Your task to perform on an android device: turn off javascript in the chrome app Image 0: 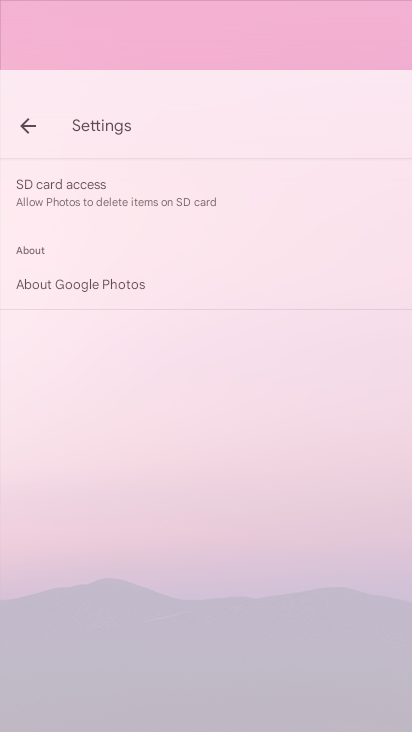
Step 0: click (198, 620)
Your task to perform on an android device: turn off javascript in the chrome app Image 1: 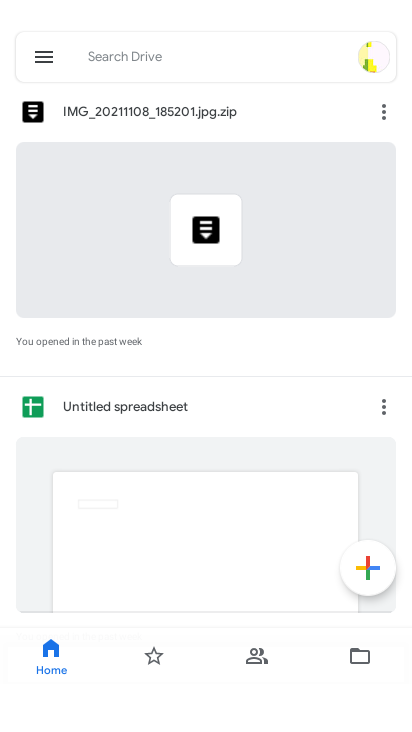
Step 1: press back button
Your task to perform on an android device: turn off javascript in the chrome app Image 2: 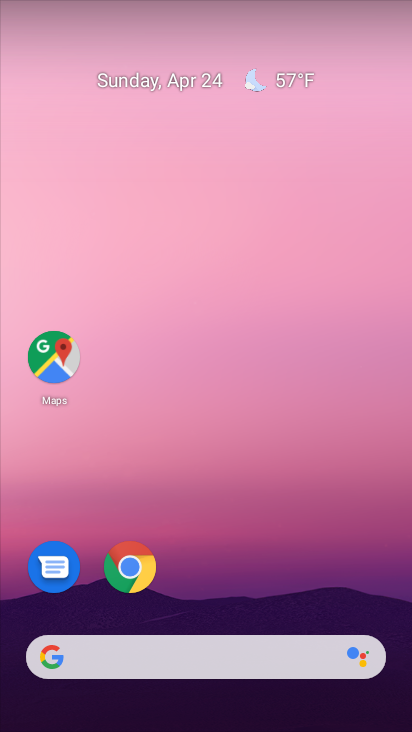
Step 2: click (346, 182)
Your task to perform on an android device: turn off javascript in the chrome app Image 3: 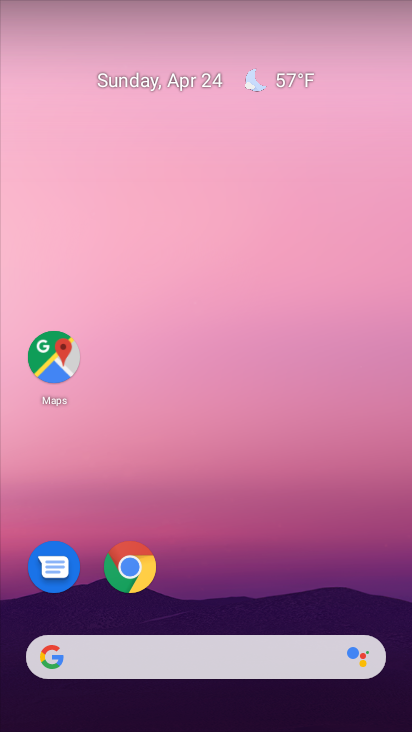
Step 3: click (128, 569)
Your task to perform on an android device: turn off javascript in the chrome app Image 4: 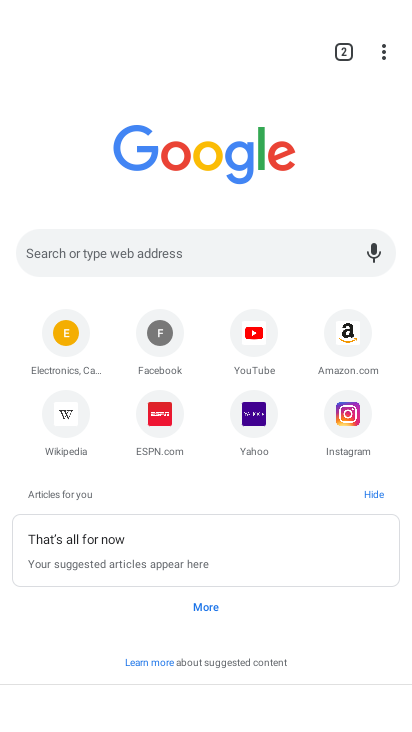
Step 4: click (383, 45)
Your task to perform on an android device: turn off javascript in the chrome app Image 5: 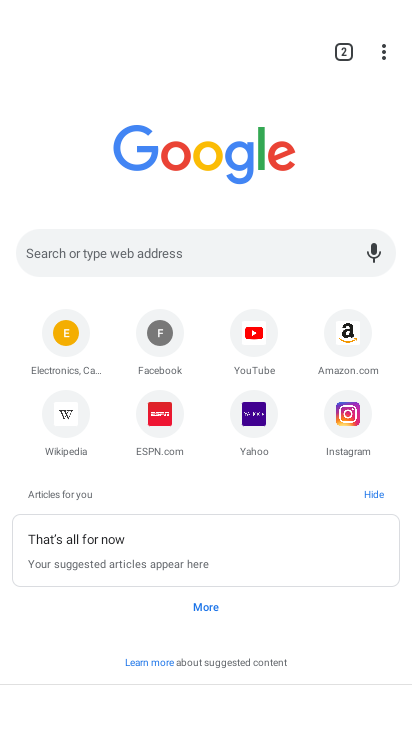
Step 5: click (139, 253)
Your task to perform on an android device: turn off javascript in the chrome app Image 6: 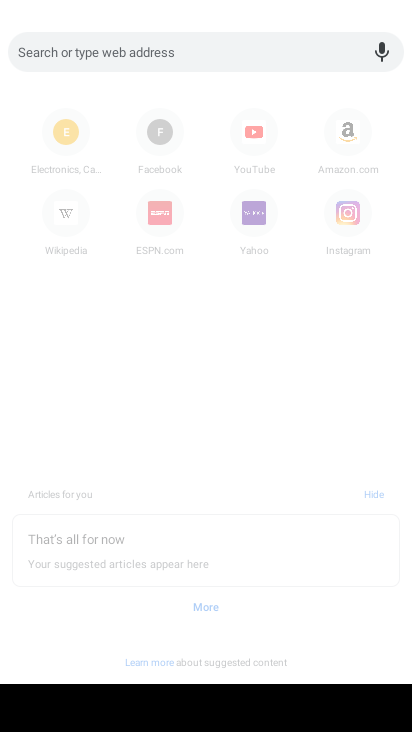
Step 6: press back button
Your task to perform on an android device: turn off javascript in the chrome app Image 7: 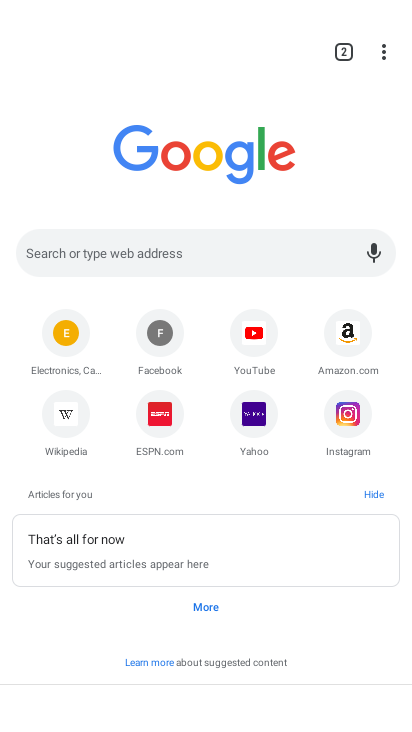
Step 7: click (382, 46)
Your task to perform on an android device: turn off javascript in the chrome app Image 8: 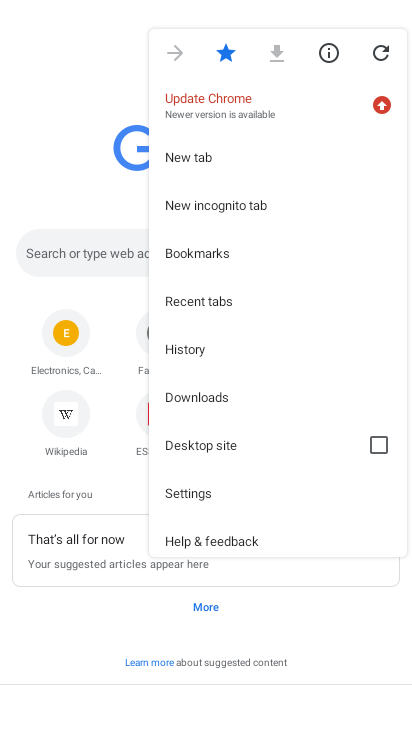
Step 8: drag from (301, 440) to (306, 244)
Your task to perform on an android device: turn off javascript in the chrome app Image 9: 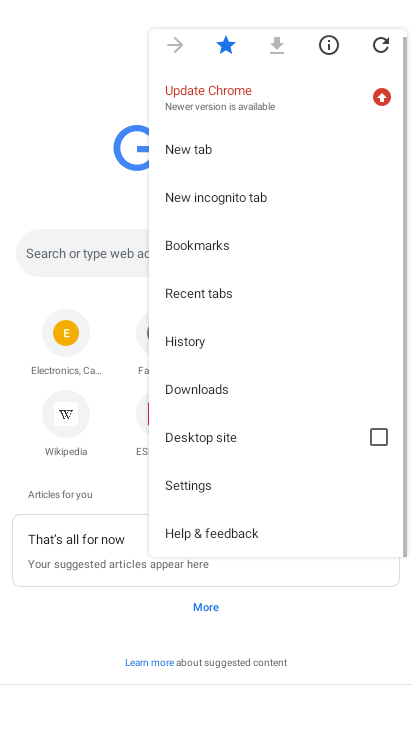
Step 9: drag from (290, 419) to (297, 161)
Your task to perform on an android device: turn off javascript in the chrome app Image 10: 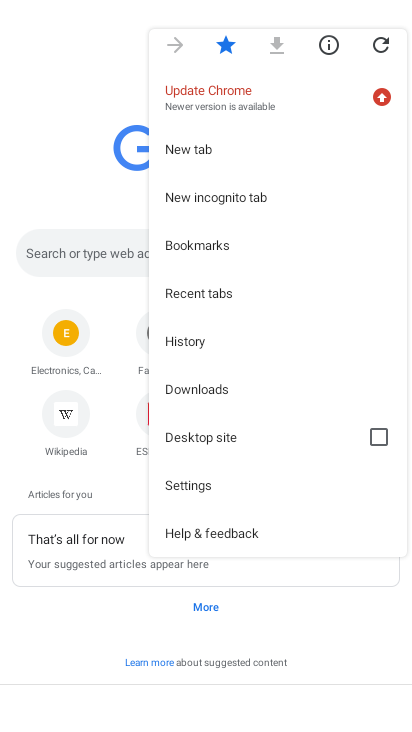
Step 10: click (185, 480)
Your task to perform on an android device: turn off javascript in the chrome app Image 11: 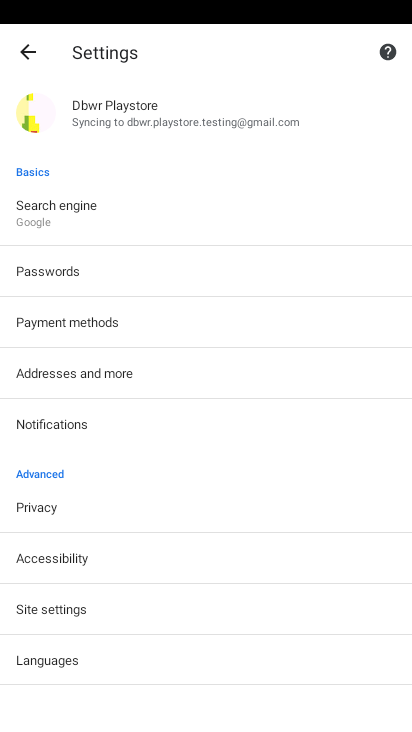
Step 11: click (70, 603)
Your task to perform on an android device: turn off javascript in the chrome app Image 12: 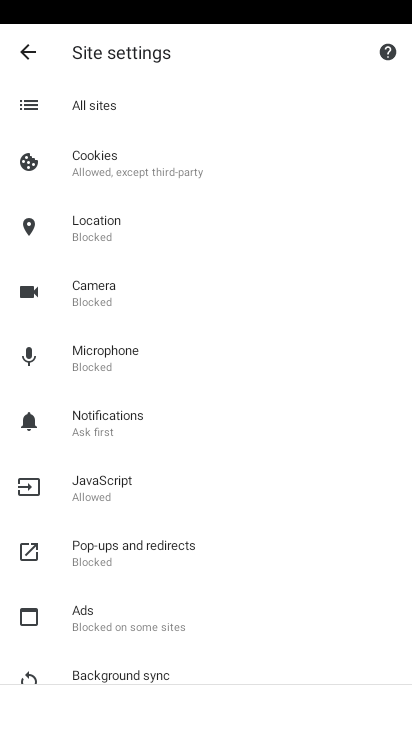
Step 12: click (92, 487)
Your task to perform on an android device: turn off javascript in the chrome app Image 13: 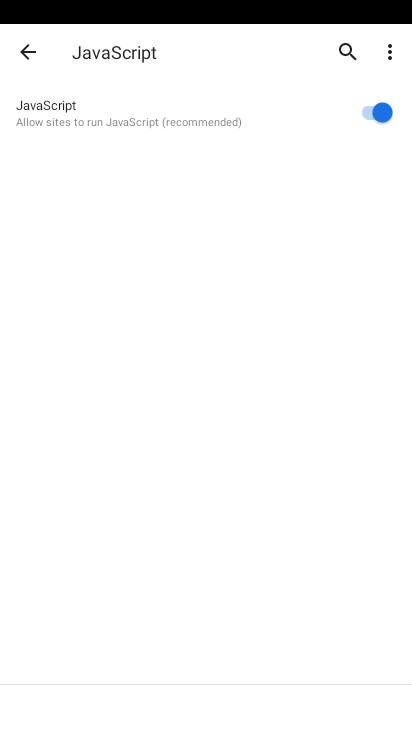
Step 13: click (367, 111)
Your task to perform on an android device: turn off javascript in the chrome app Image 14: 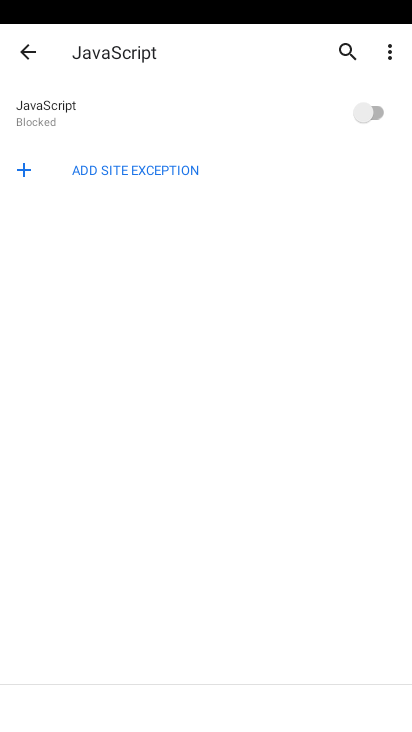
Step 14: task complete